Your task to perform on an android device: turn off notifications settings in the gmail app Image 0: 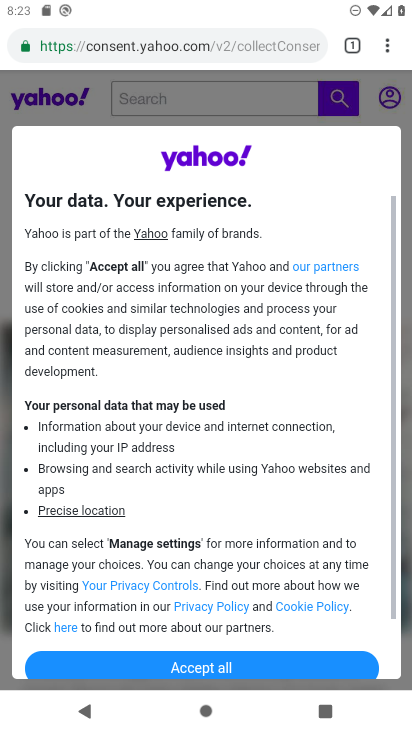
Step 0: press home button
Your task to perform on an android device: turn off notifications settings in the gmail app Image 1: 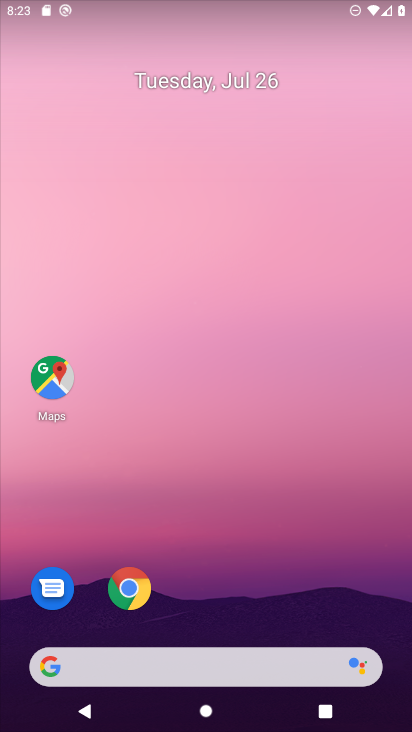
Step 1: drag from (227, 627) to (238, 0)
Your task to perform on an android device: turn off notifications settings in the gmail app Image 2: 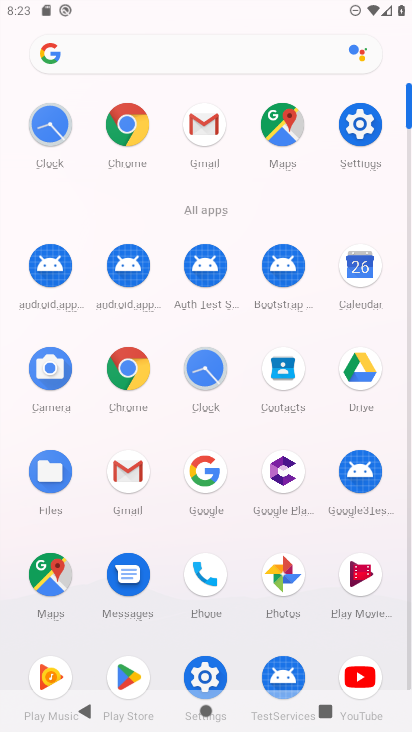
Step 2: click (210, 128)
Your task to perform on an android device: turn off notifications settings in the gmail app Image 3: 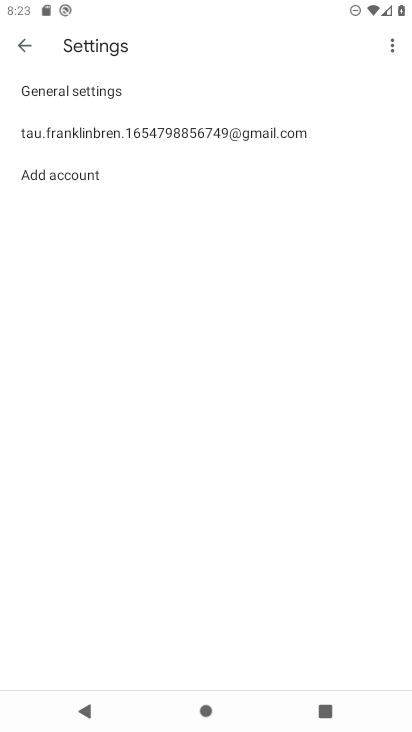
Step 3: click (39, 93)
Your task to perform on an android device: turn off notifications settings in the gmail app Image 4: 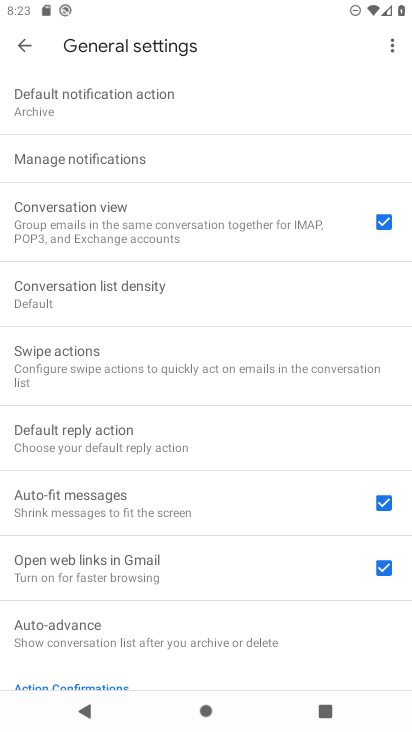
Step 4: click (106, 161)
Your task to perform on an android device: turn off notifications settings in the gmail app Image 5: 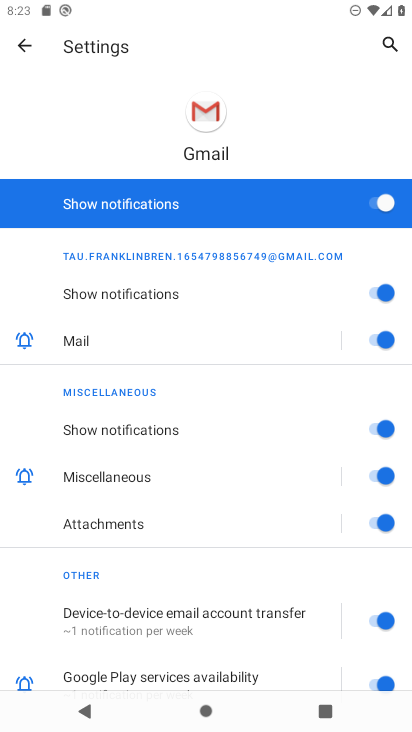
Step 5: click (383, 199)
Your task to perform on an android device: turn off notifications settings in the gmail app Image 6: 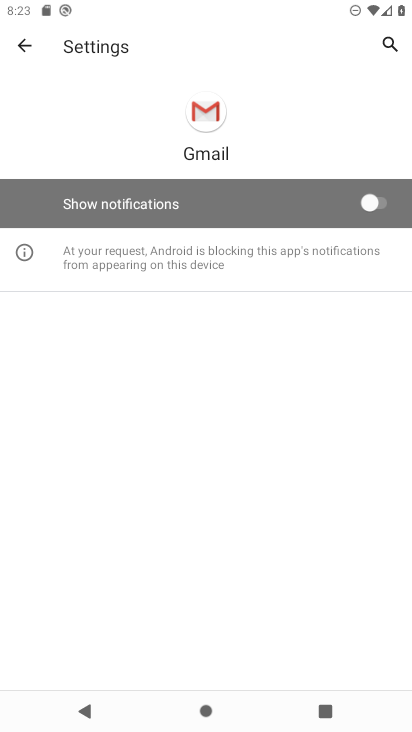
Step 6: task complete